Your task to perform on an android device: Clear the cart on walmart. Search for "bose soundlink" on walmart, select the first entry, add it to the cart, then select checkout. Image 0: 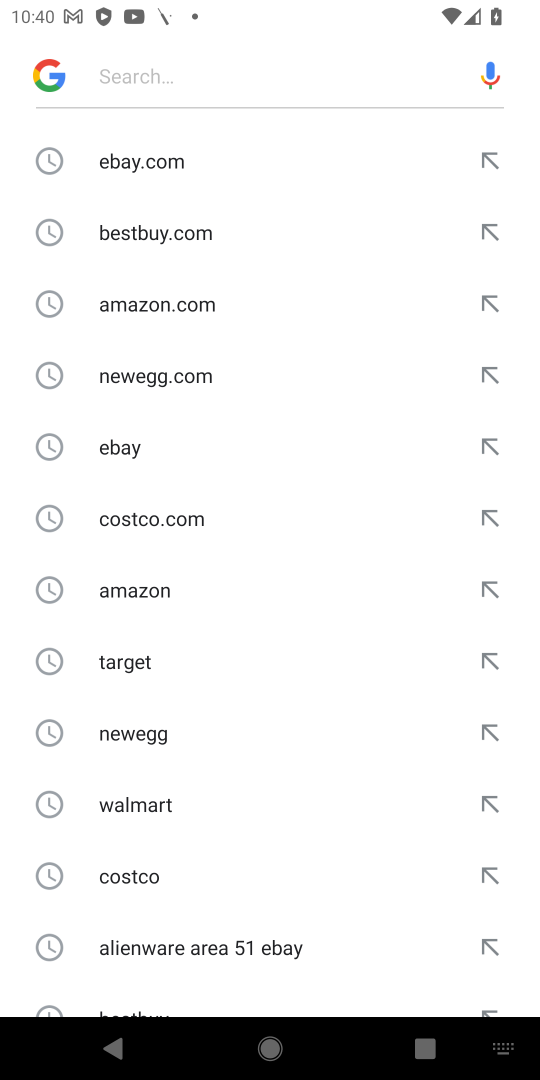
Step 0: press home button
Your task to perform on an android device: Clear the cart on walmart. Search for "bose soundlink" on walmart, select the first entry, add it to the cart, then select checkout. Image 1: 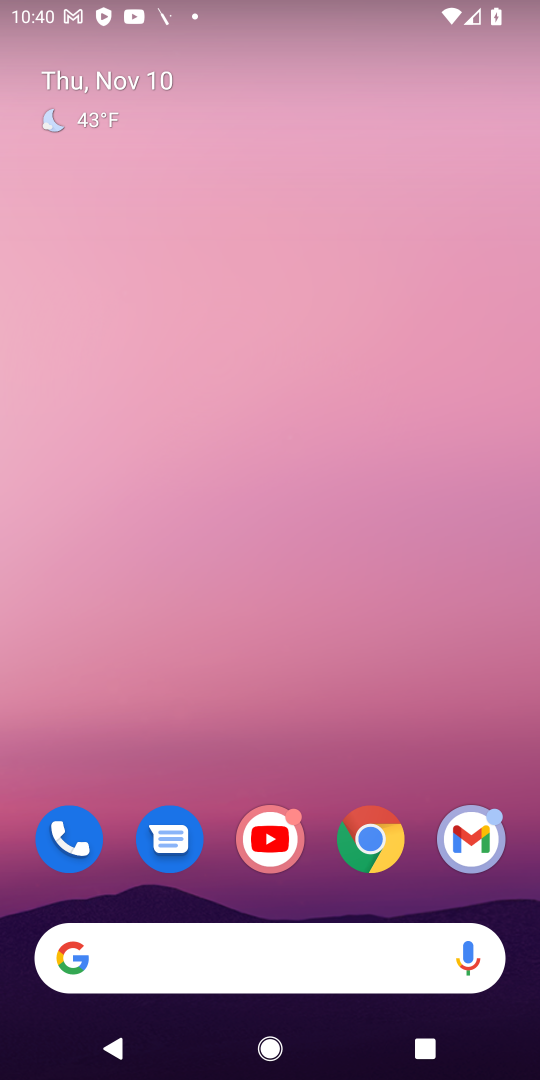
Step 1: click (376, 842)
Your task to perform on an android device: Clear the cart on walmart. Search for "bose soundlink" on walmart, select the first entry, add it to the cart, then select checkout. Image 2: 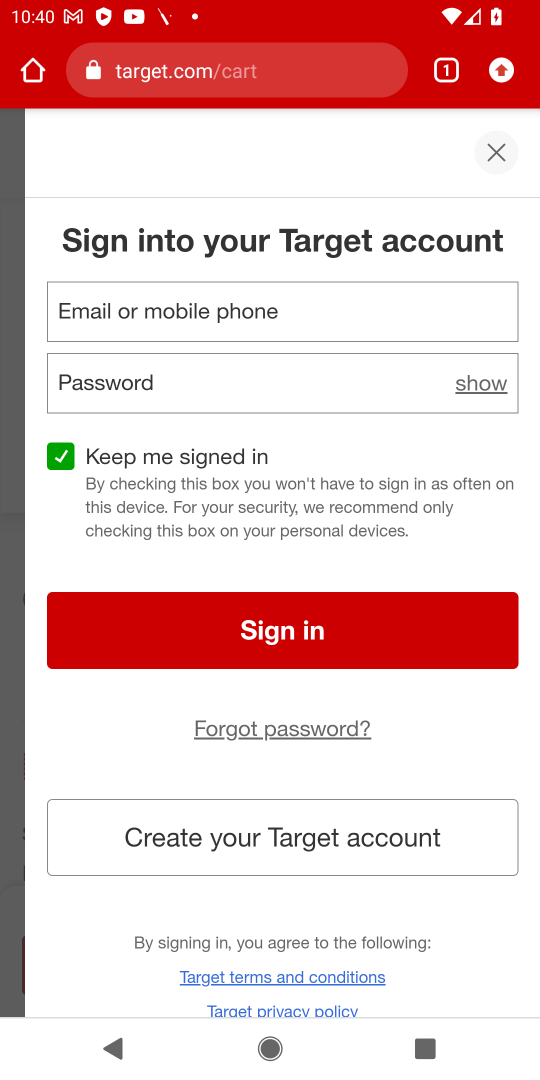
Step 2: click (305, 67)
Your task to perform on an android device: Clear the cart on walmart. Search for "bose soundlink" on walmart, select the first entry, add it to the cart, then select checkout. Image 3: 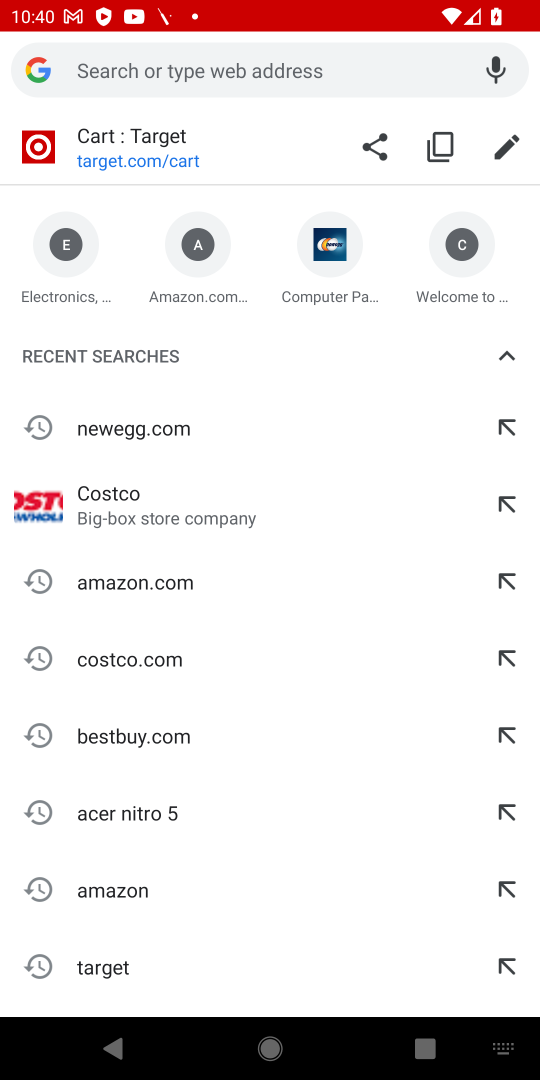
Step 3: type "walmart"
Your task to perform on an android device: Clear the cart on walmart. Search for "bose soundlink" on walmart, select the first entry, add it to the cart, then select checkout. Image 4: 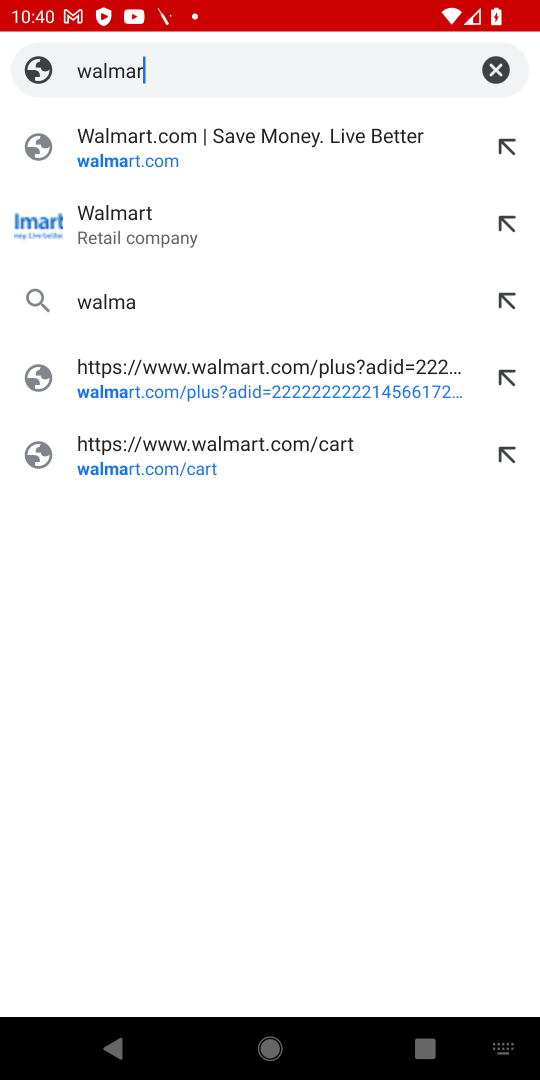
Step 4: press enter
Your task to perform on an android device: Clear the cart on walmart. Search for "bose soundlink" on walmart, select the first entry, add it to the cart, then select checkout. Image 5: 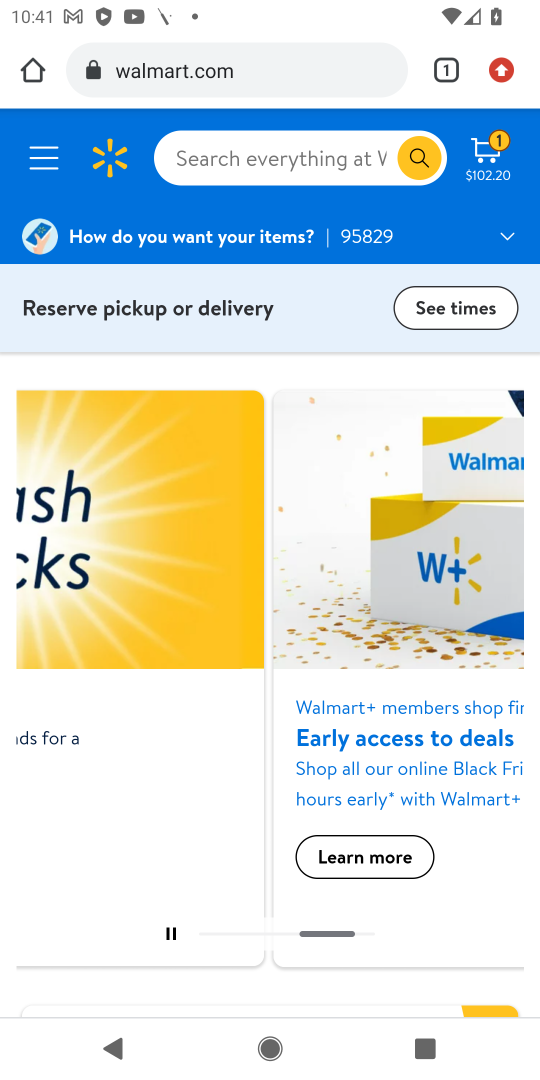
Step 5: click (269, 153)
Your task to perform on an android device: Clear the cart on walmart. Search for "bose soundlink" on walmart, select the first entry, add it to the cart, then select checkout. Image 6: 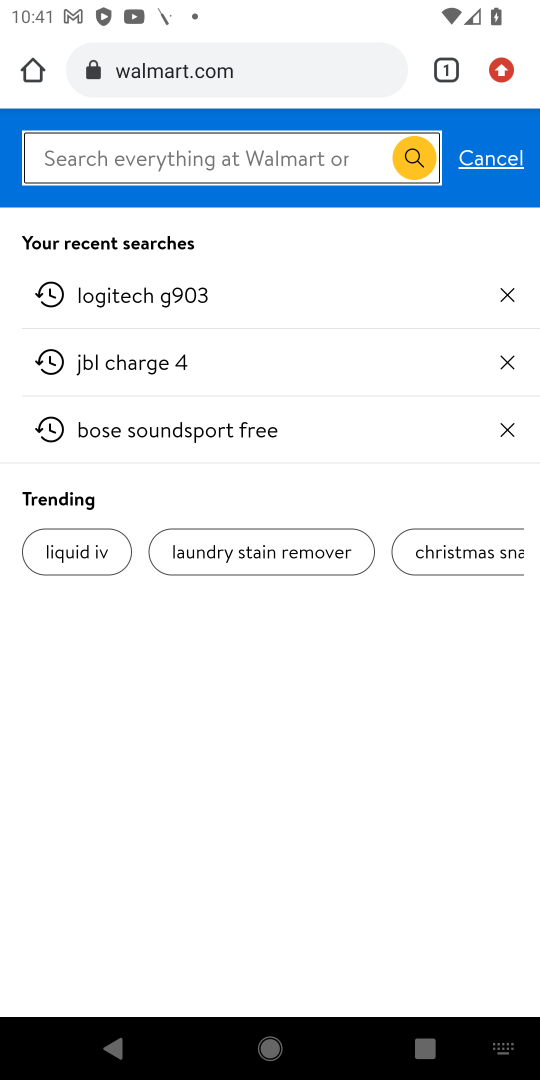
Step 6: type "bose soundlink"
Your task to perform on an android device: Clear the cart on walmart. Search for "bose soundlink" on walmart, select the first entry, add it to the cart, then select checkout. Image 7: 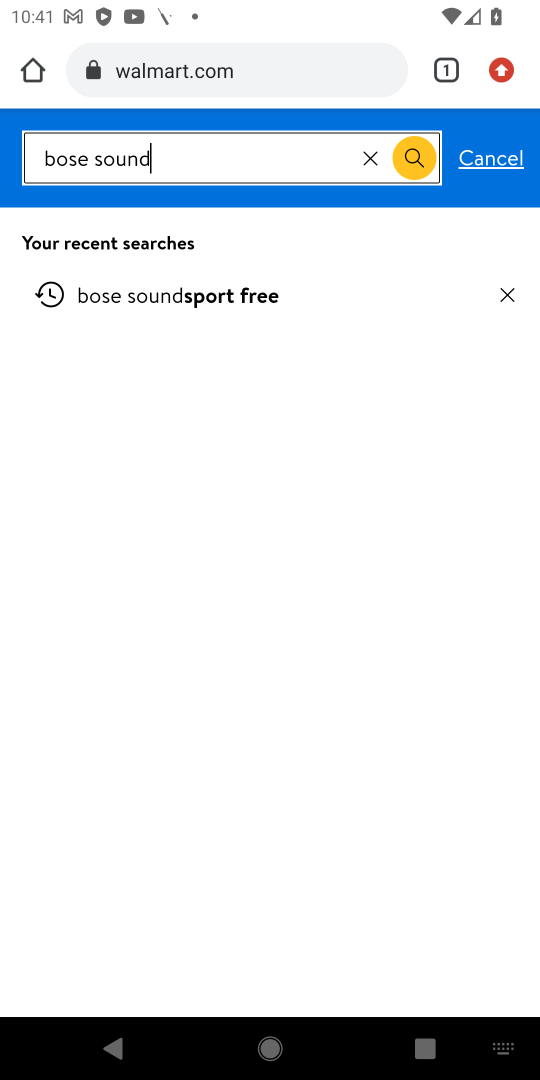
Step 7: press enter
Your task to perform on an android device: Clear the cart on walmart. Search for "bose soundlink" on walmart, select the first entry, add it to the cart, then select checkout. Image 8: 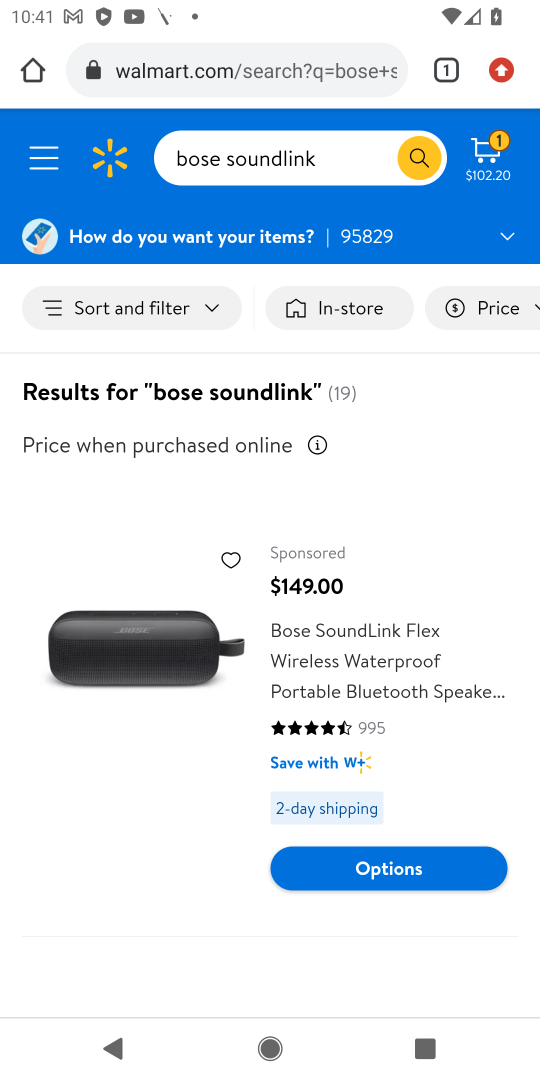
Step 8: click (140, 685)
Your task to perform on an android device: Clear the cart on walmart. Search for "bose soundlink" on walmart, select the first entry, add it to the cart, then select checkout. Image 9: 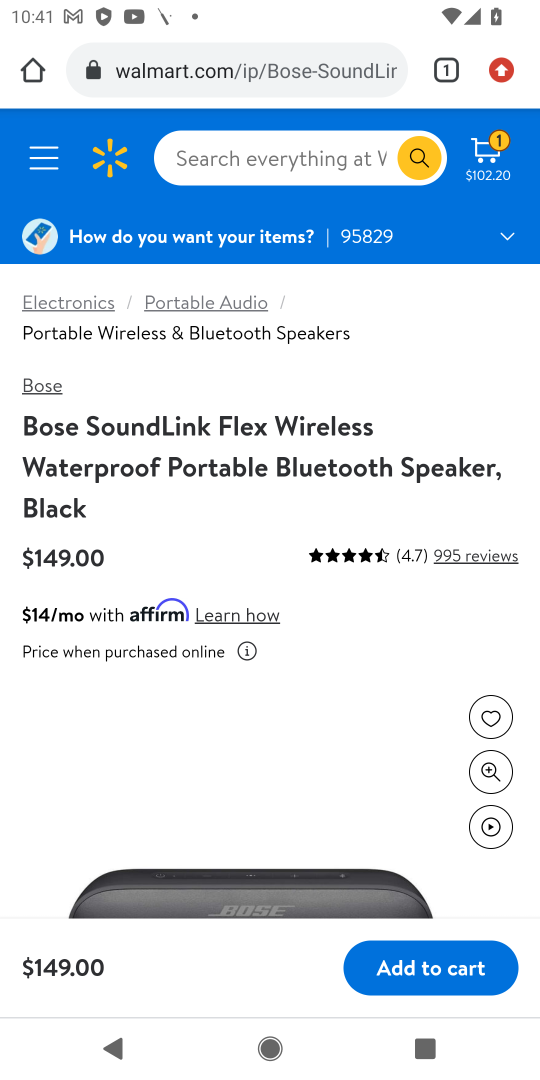
Step 9: click (419, 969)
Your task to perform on an android device: Clear the cart on walmart. Search for "bose soundlink" on walmart, select the first entry, add it to the cart, then select checkout. Image 10: 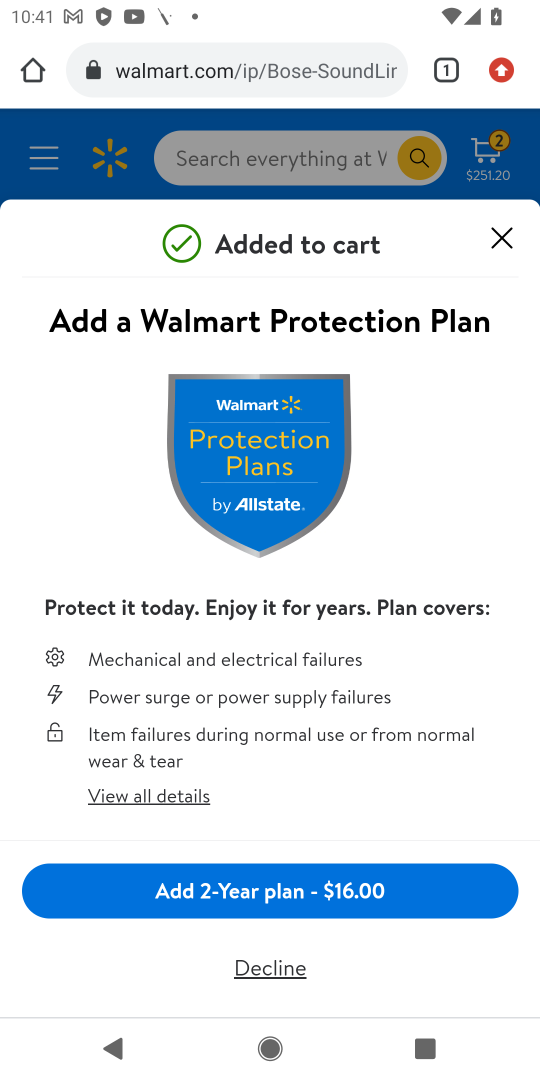
Step 10: click (500, 231)
Your task to perform on an android device: Clear the cart on walmart. Search for "bose soundlink" on walmart, select the first entry, add it to the cart, then select checkout. Image 11: 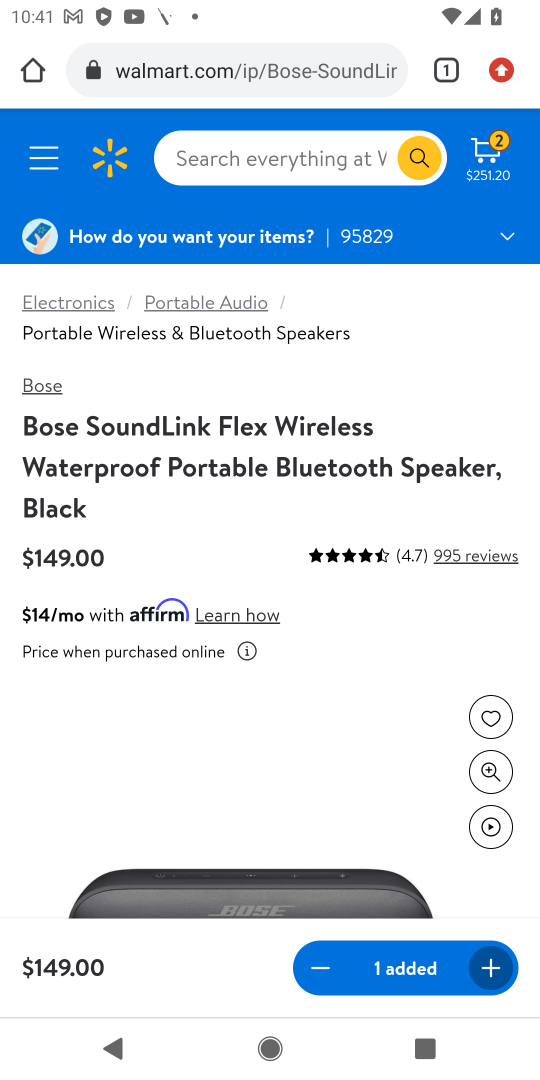
Step 11: click (492, 162)
Your task to perform on an android device: Clear the cart on walmart. Search for "bose soundlink" on walmart, select the first entry, add it to the cart, then select checkout. Image 12: 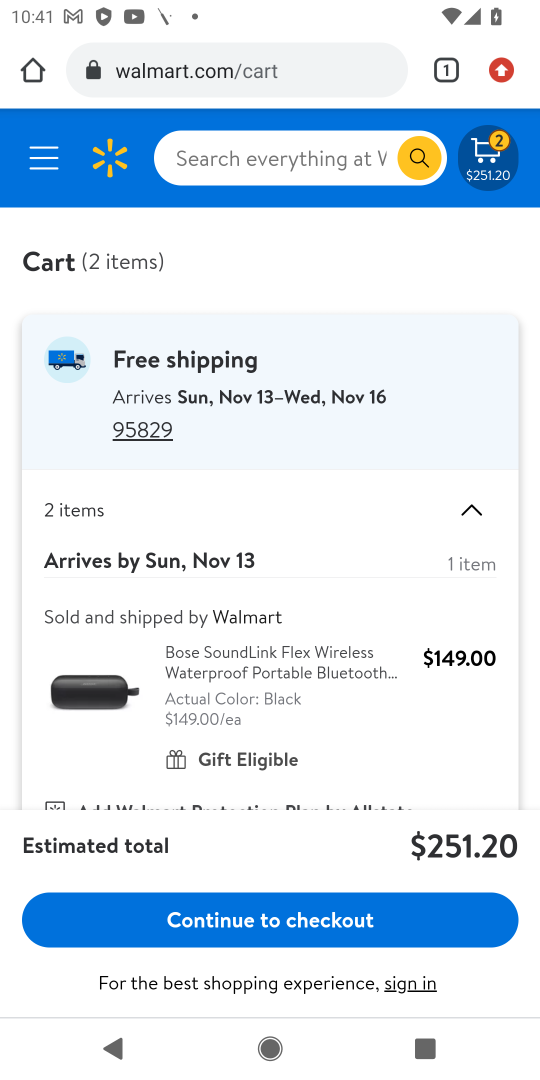
Step 12: click (345, 926)
Your task to perform on an android device: Clear the cart on walmart. Search for "bose soundlink" on walmart, select the first entry, add it to the cart, then select checkout. Image 13: 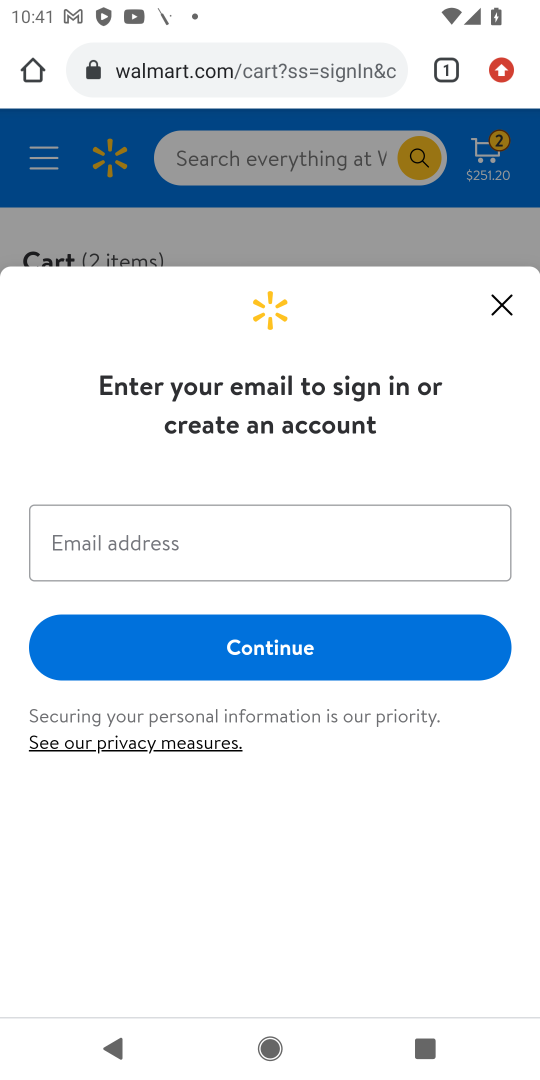
Step 13: task complete